Your task to perform on an android device: Toggle the flashlight Image 0: 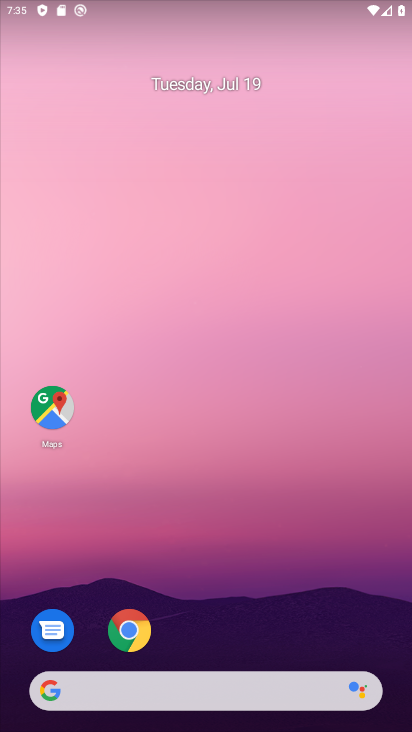
Step 0: drag from (280, 21) to (238, 546)
Your task to perform on an android device: Toggle the flashlight Image 1: 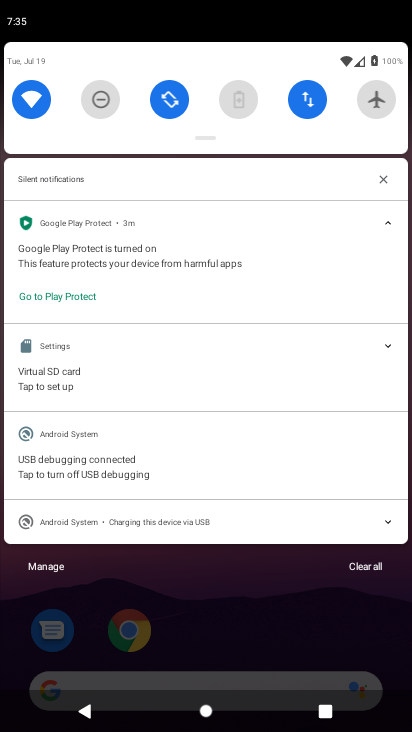
Step 1: task complete